Your task to perform on an android device: open app "Firefox Browser" Image 0: 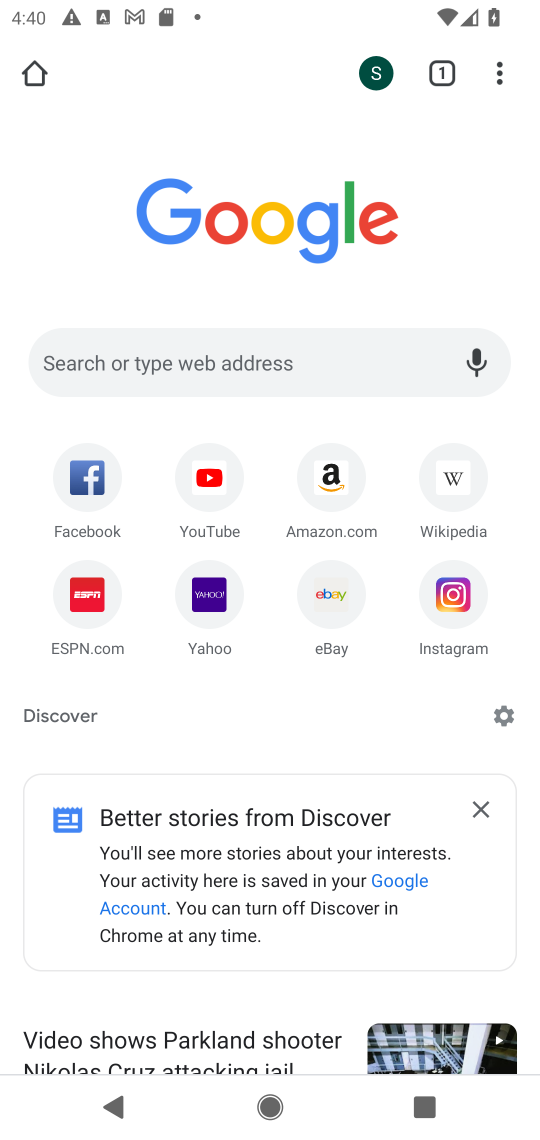
Step 0: press home button
Your task to perform on an android device: open app "Firefox Browser" Image 1: 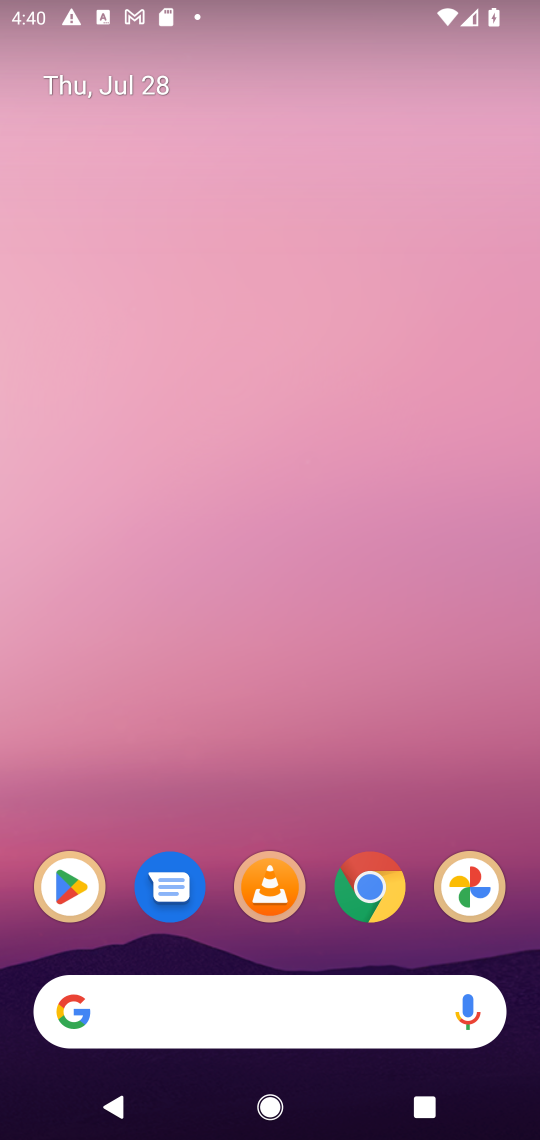
Step 1: click (71, 888)
Your task to perform on an android device: open app "Firefox Browser" Image 2: 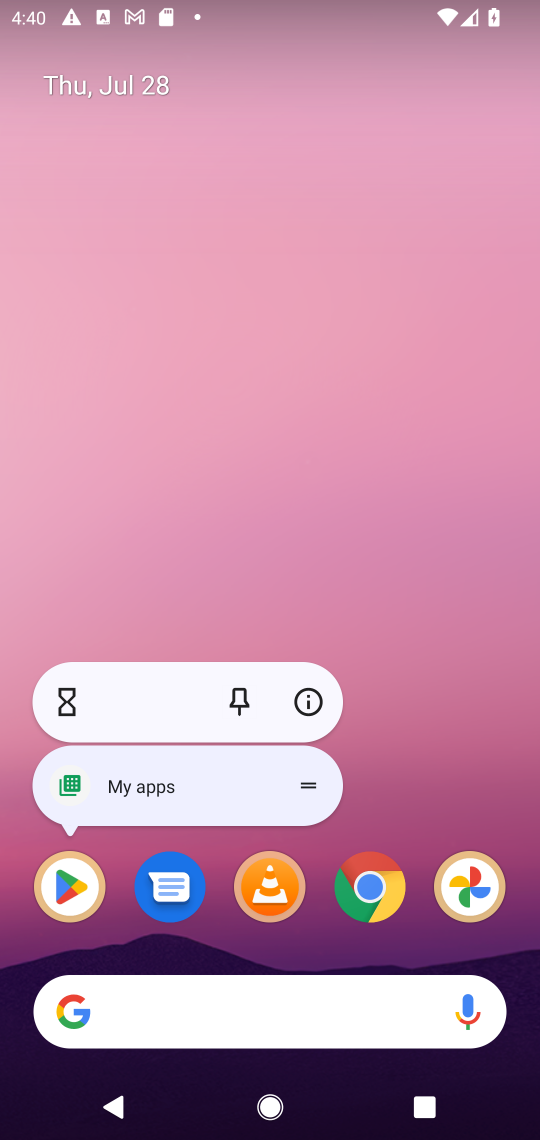
Step 2: click (70, 884)
Your task to perform on an android device: open app "Firefox Browser" Image 3: 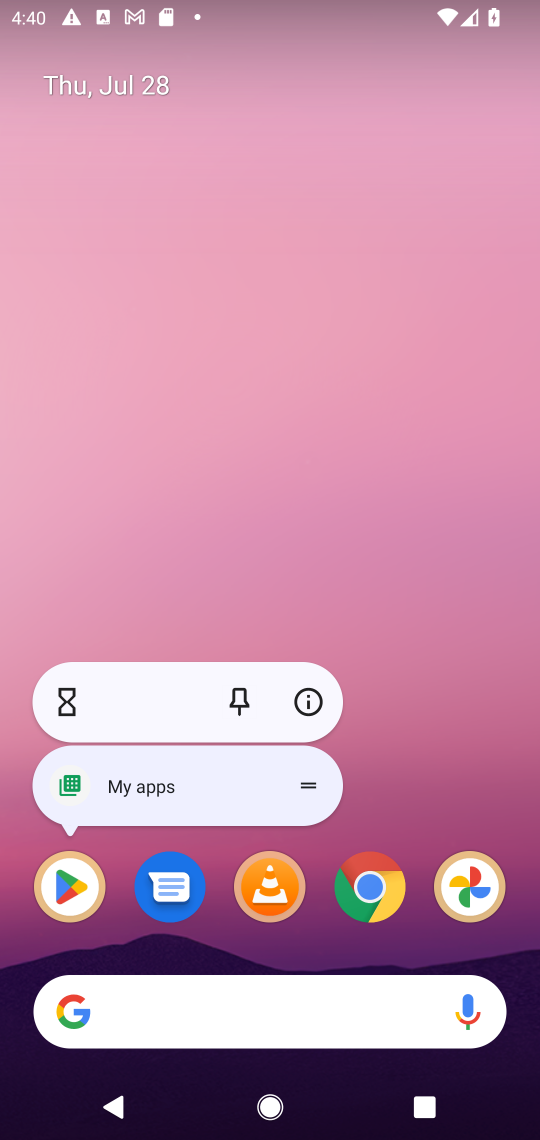
Step 3: click (71, 887)
Your task to perform on an android device: open app "Firefox Browser" Image 4: 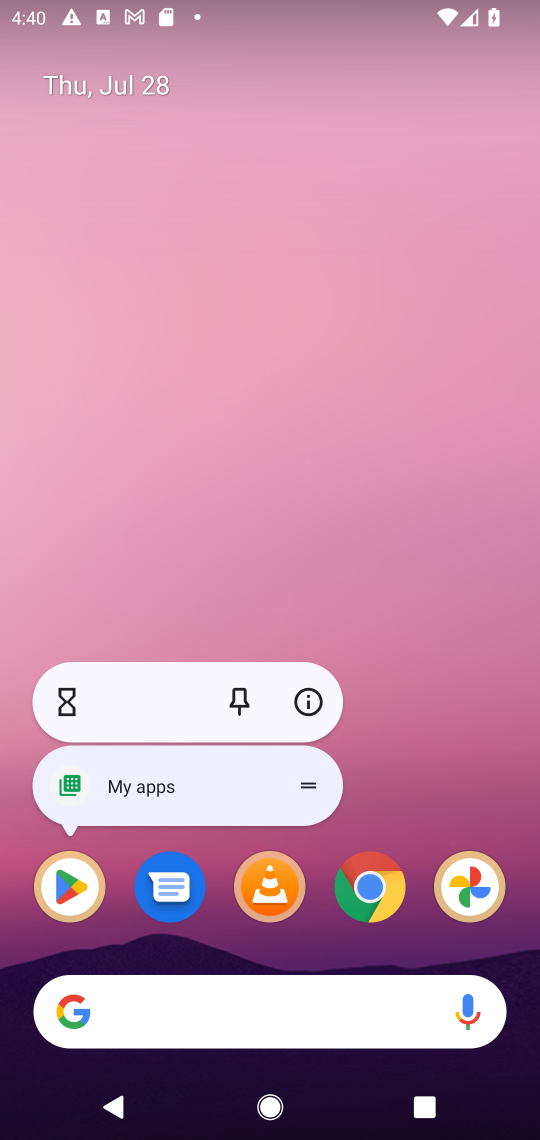
Step 4: click (69, 910)
Your task to perform on an android device: open app "Firefox Browser" Image 5: 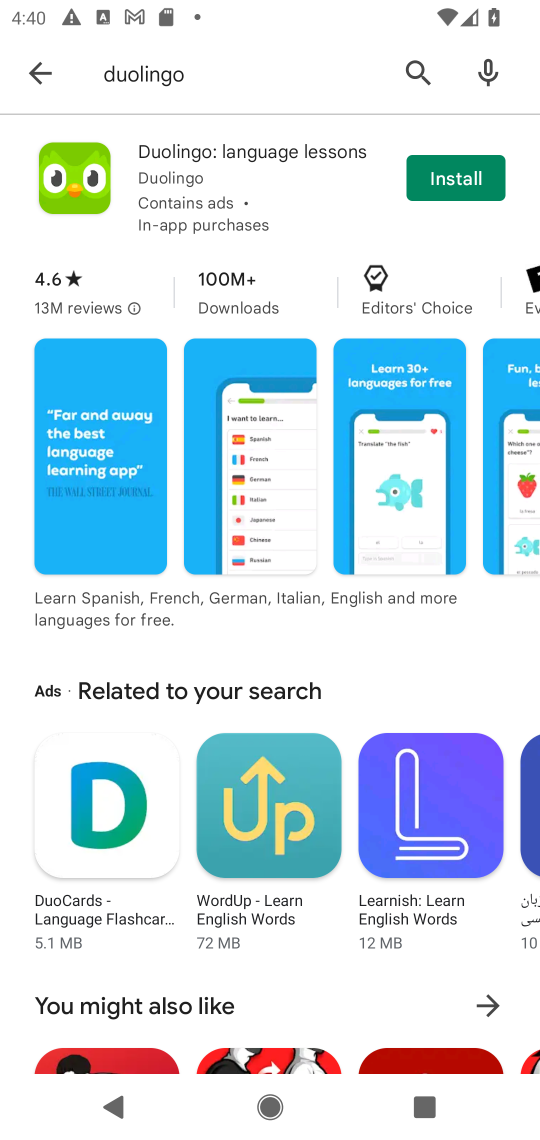
Step 5: click (256, 67)
Your task to perform on an android device: open app "Firefox Browser" Image 6: 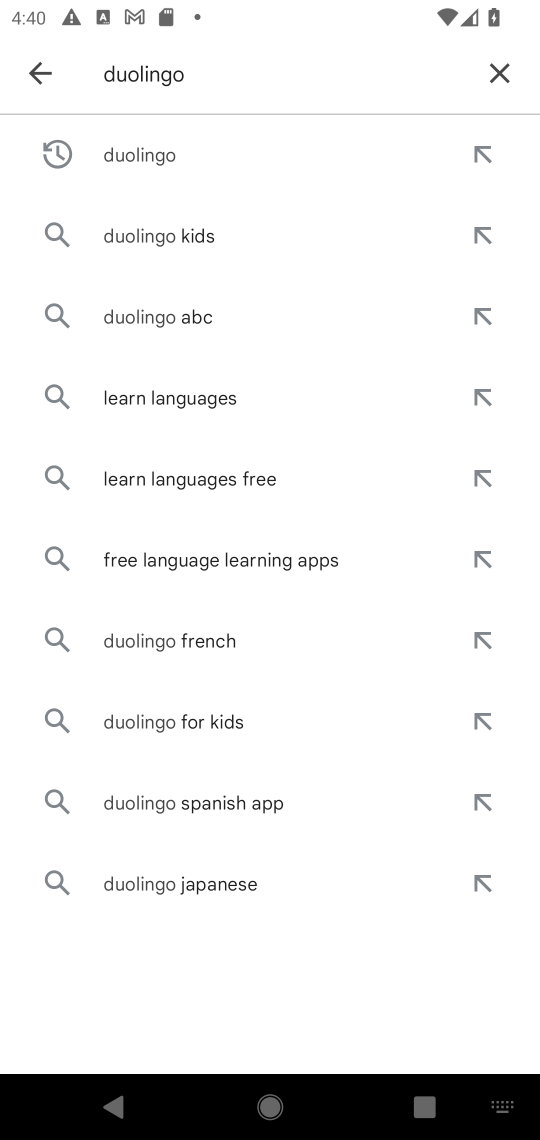
Step 6: click (491, 78)
Your task to perform on an android device: open app "Firefox Browser" Image 7: 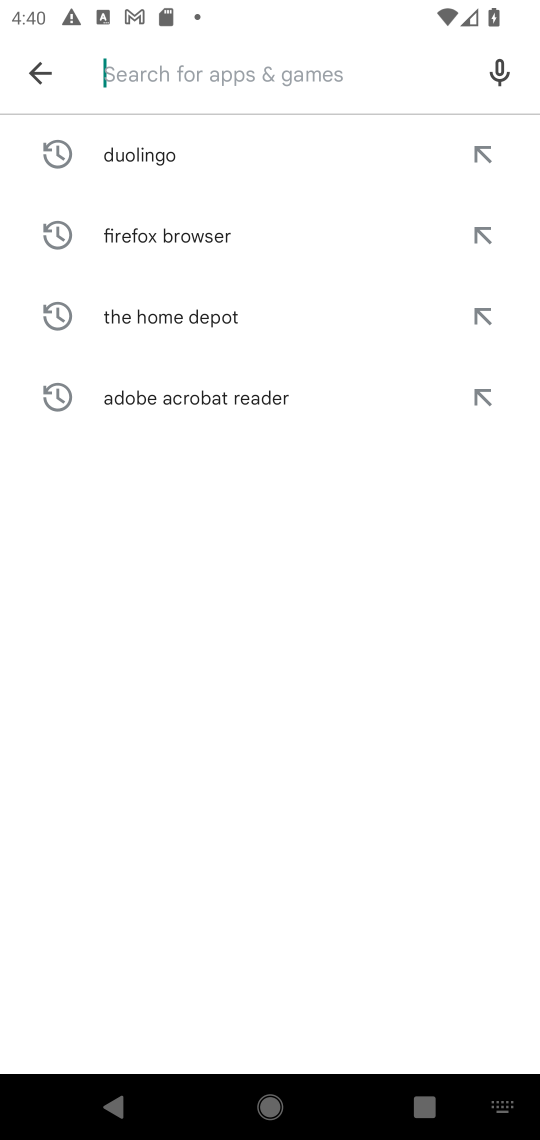
Step 7: type "firefox Browser"
Your task to perform on an android device: open app "Firefox Browser" Image 8: 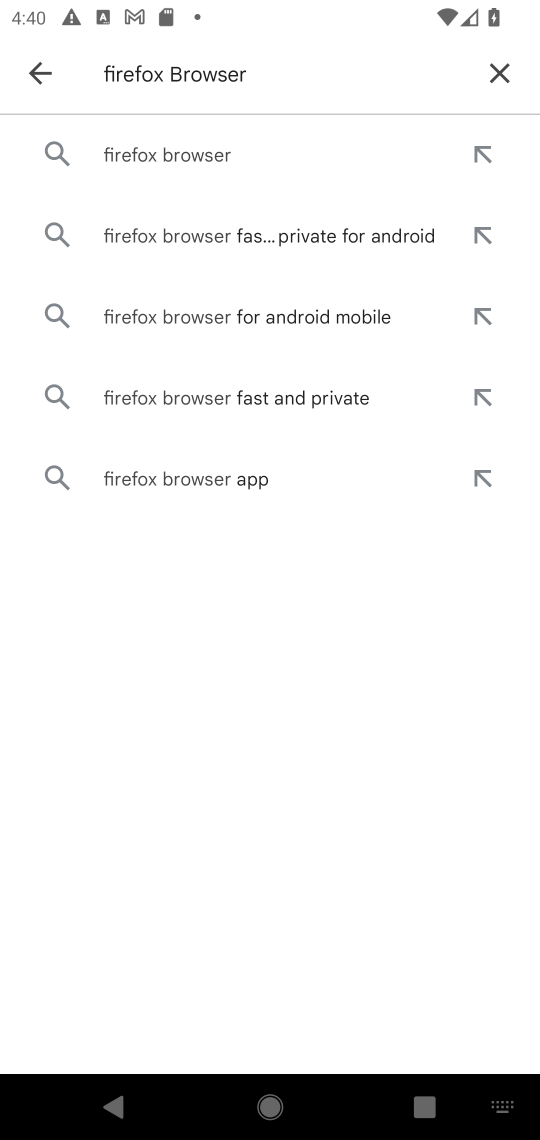
Step 8: click (193, 151)
Your task to perform on an android device: open app "Firefox Browser" Image 9: 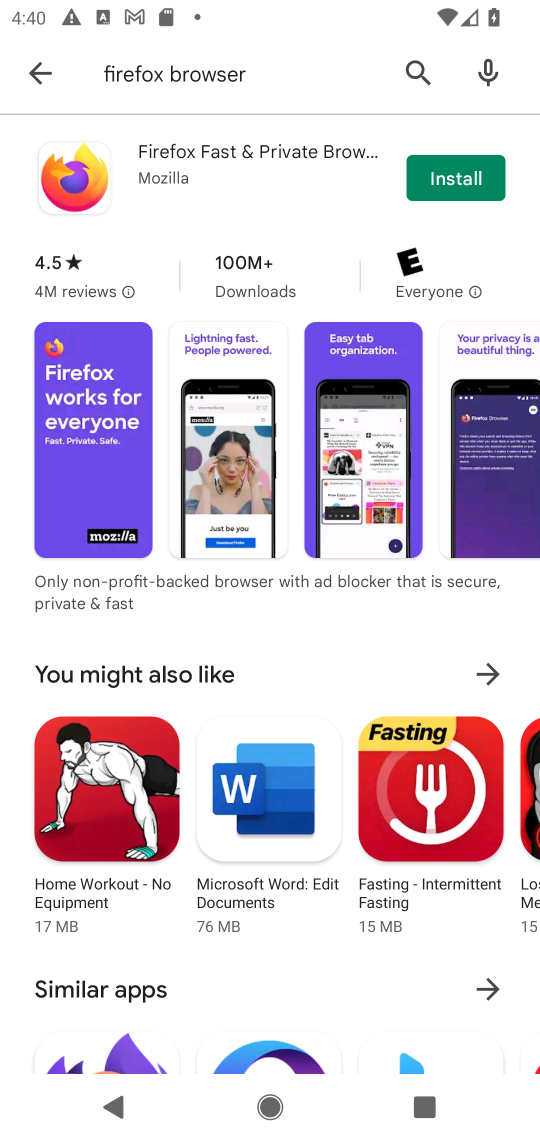
Step 9: task complete